Your task to perform on an android device: Turn on the flashlight Image 0: 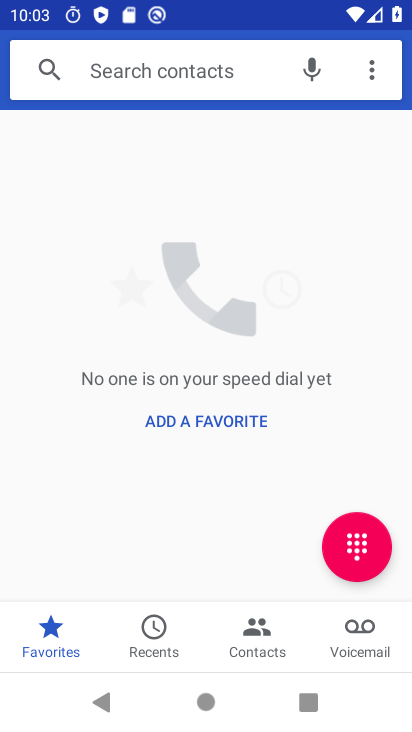
Step 0: drag from (244, 2) to (269, 315)
Your task to perform on an android device: Turn on the flashlight Image 1: 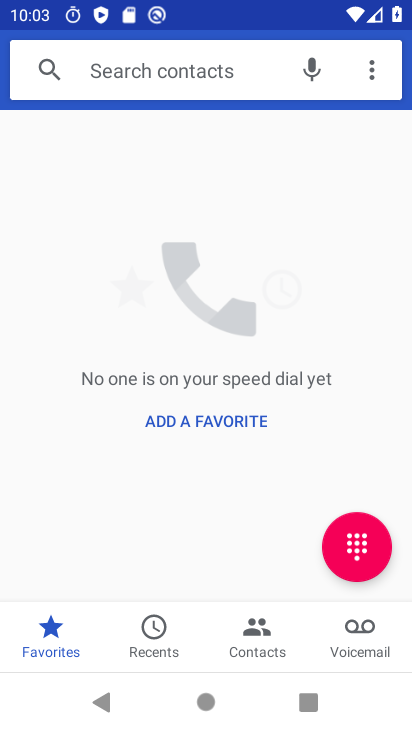
Step 1: task complete